Your task to perform on an android device: move an email to a new category in the gmail app Image 0: 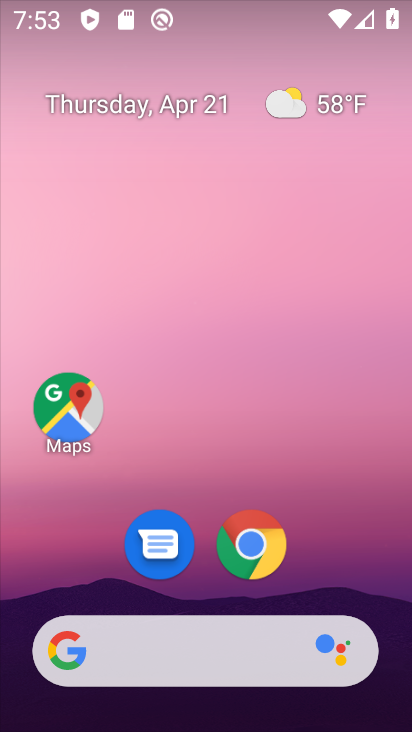
Step 0: drag from (239, 702) to (247, 530)
Your task to perform on an android device: move an email to a new category in the gmail app Image 1: 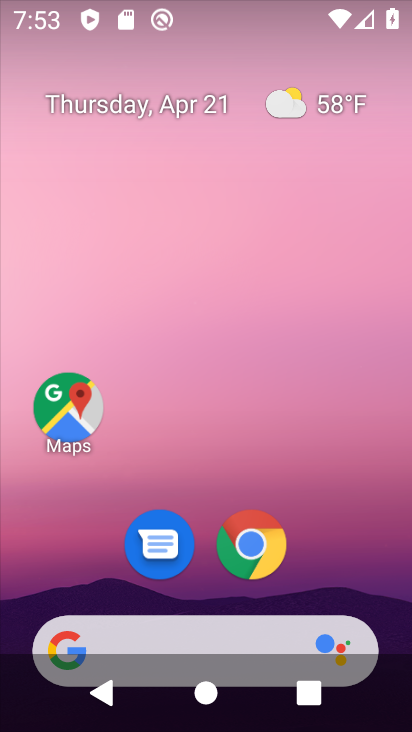
Step 1: drag from (342, 313) to (365, 153)
Your task to perform on an android device: move an email to a new category in the gmail app Image 2: 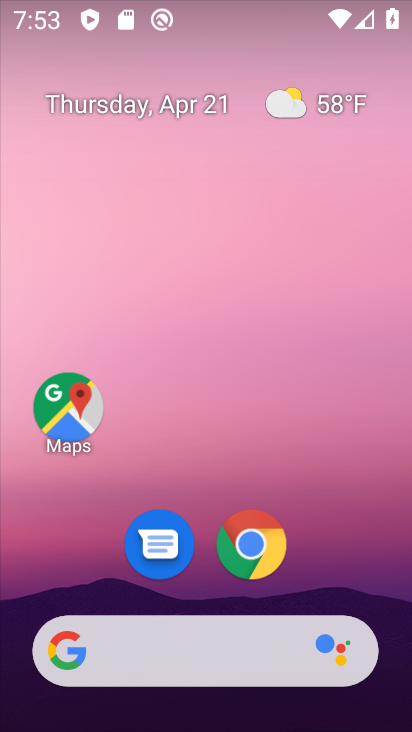
Step 2: drag from (253, 580) to (247, 206)
Your task to perform on an android device: move an email to a new category in the gmail app Image 3: 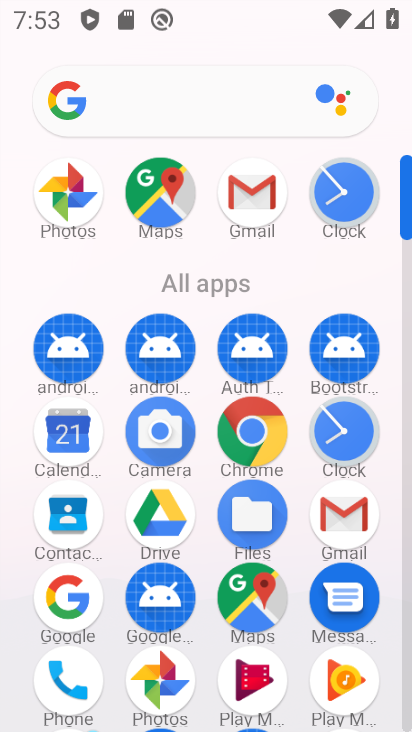
Step 3: click (336, 511)
Your task to perform on an android device: move an email to a new category in the gmail app Image 4: 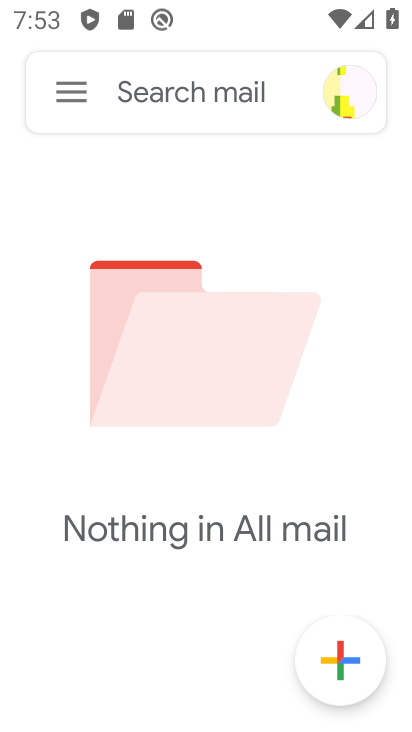
Step 4: task complete